Your task to perform on an android device: What is the news today? Image 0: 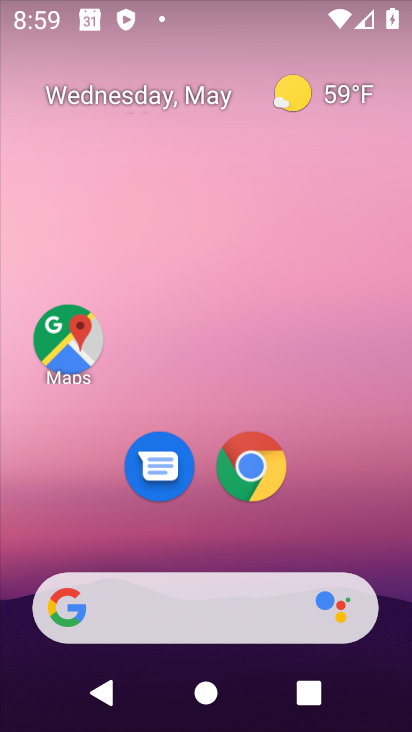
Step 0: drag from (333, 556) to (352, 263)
Your task to perform on an android device: What is the news today? Image 1: 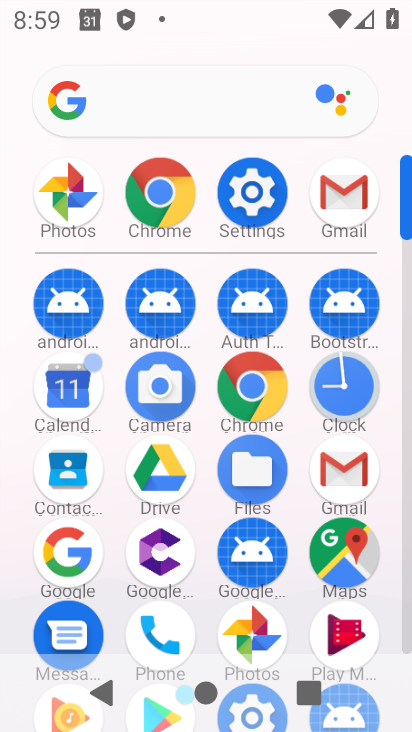
Step 1: click (148, 190)
Your task to perform on an android device: What is the news today? Image 2: 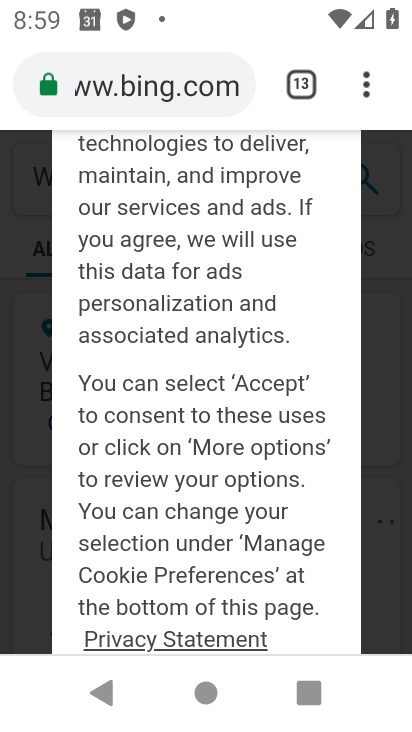
Step 2: click (336, 81)
Your task to perform on an android device: What is the news today? Image 3: 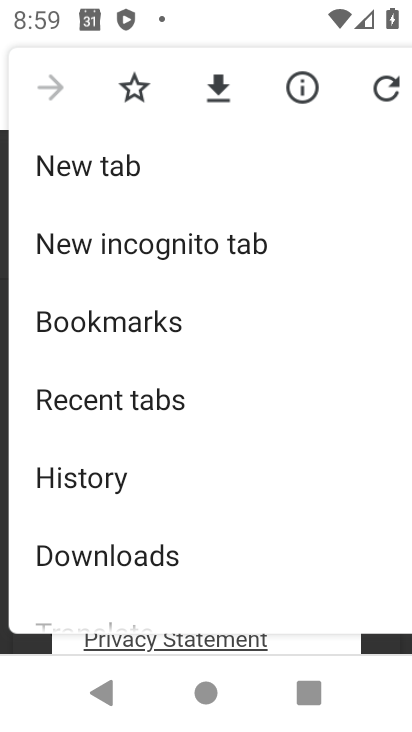
Step 3: click (148, 155)
Your task to perform on an android device: What is the news today? Image 4: 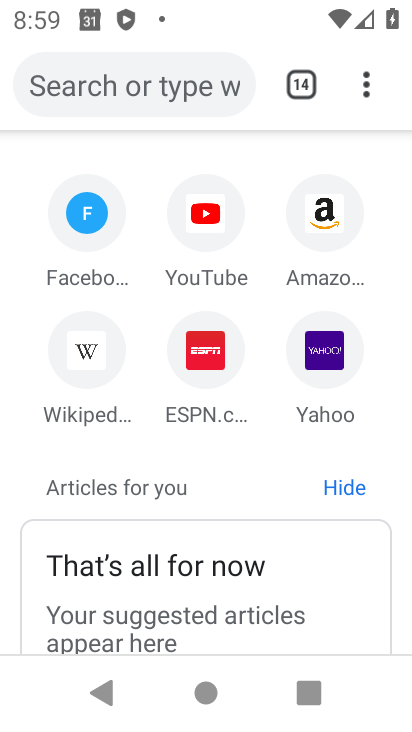
Step 4: click (61, 87)
Your task to perform on an android device: What is the news today? Image 5: 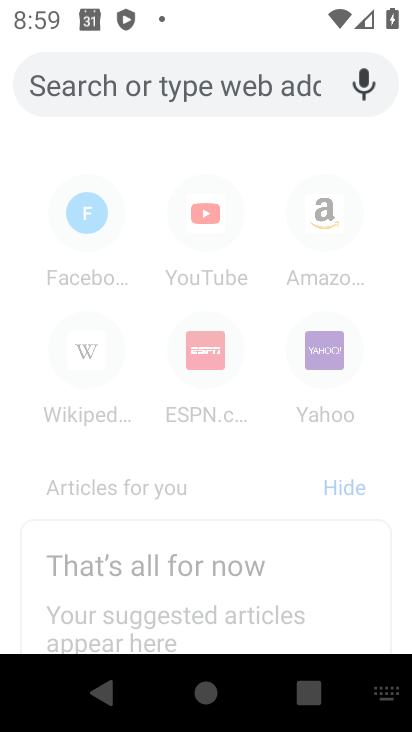
Step 5: type "What is the news today?"
Your task to perform on an android device: What is the news today? Image 6: 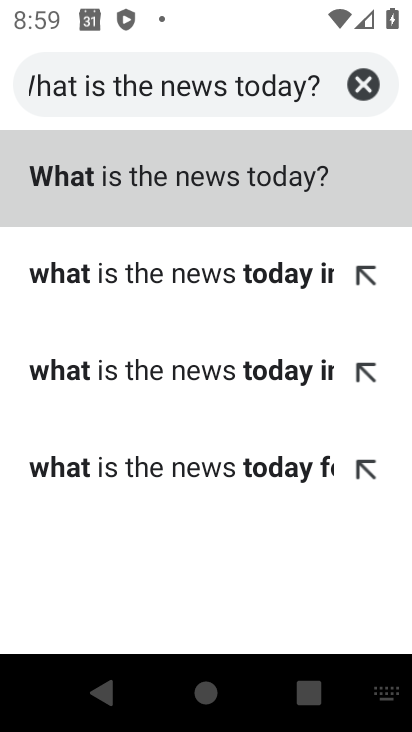
Step 6: click (183, 189)
Your task to perform on an android device: What is the news today? Image 7: 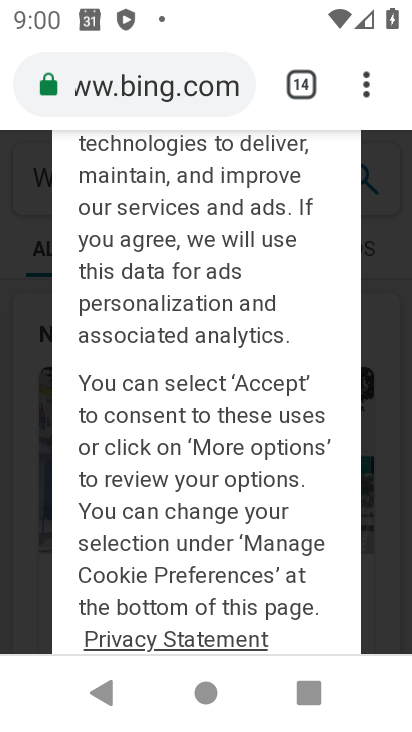
Step 7: task complete